Your task to perform on an android device: Search for usb-c on walmart, select the first entry, add it to the cart, then select checkout. Image 0: 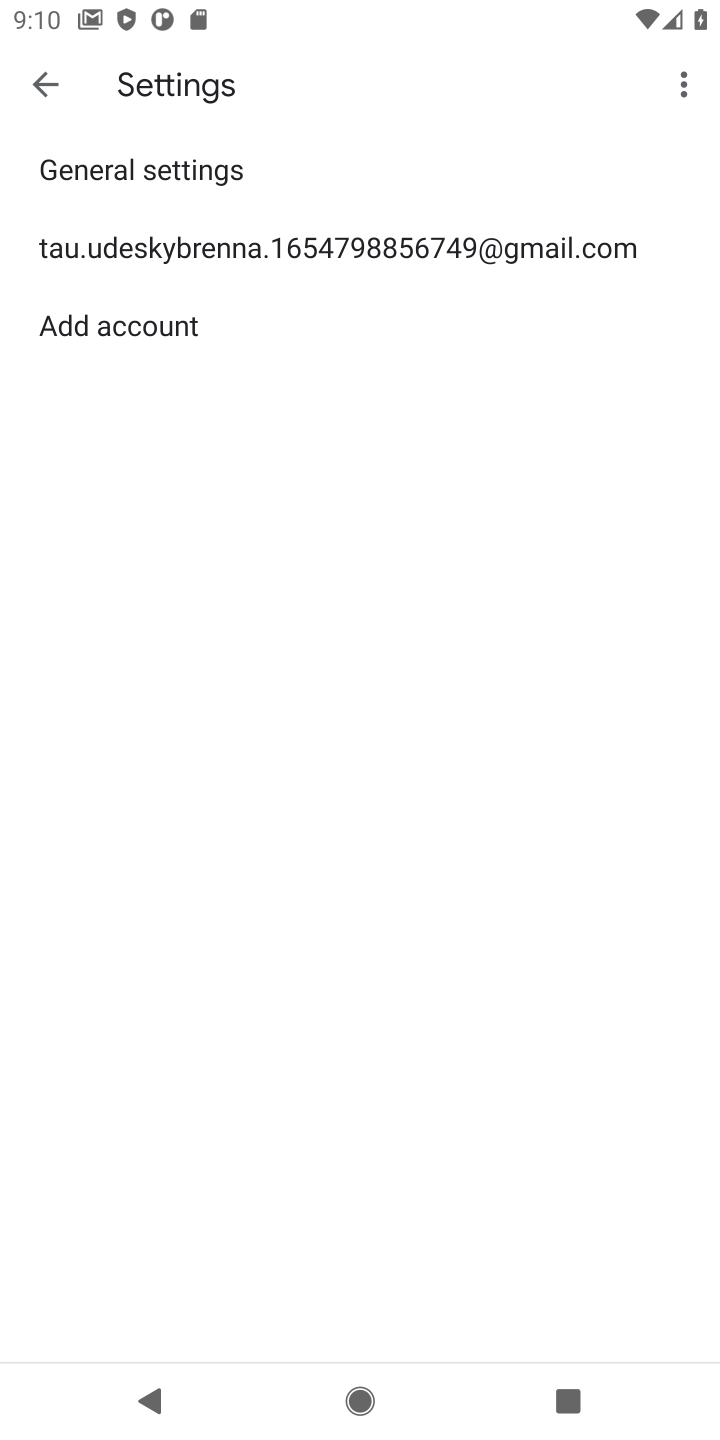
Step 0: press home button
Your task to perform on an android device: Search for usb-c on walmart, select the first entry, add it to the cart, then select checkout. Image 1: 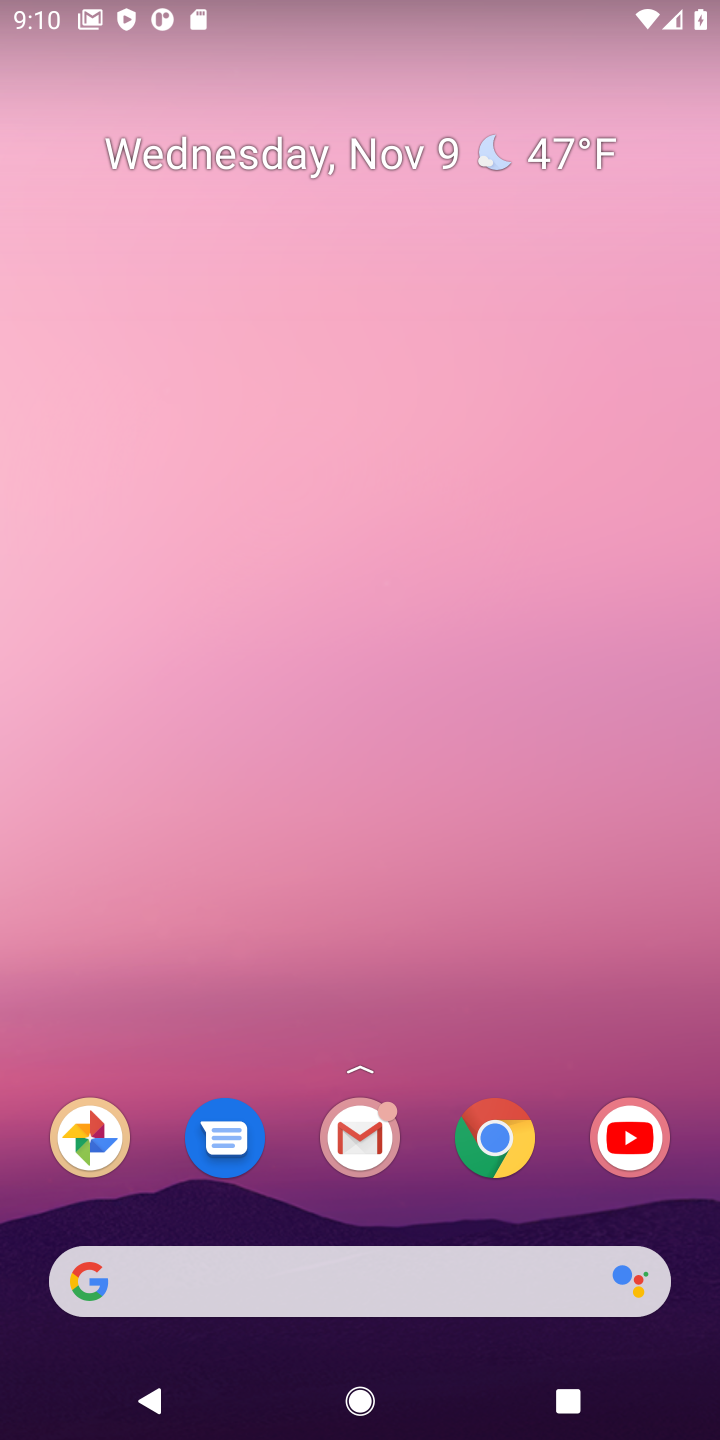
Step 1: drag from (427, 1222) to (451, 137)
Your task to perform on an android device: Search for usb-c on walmart, select the first entry, add it to the cart, then select checkout. Image 2: 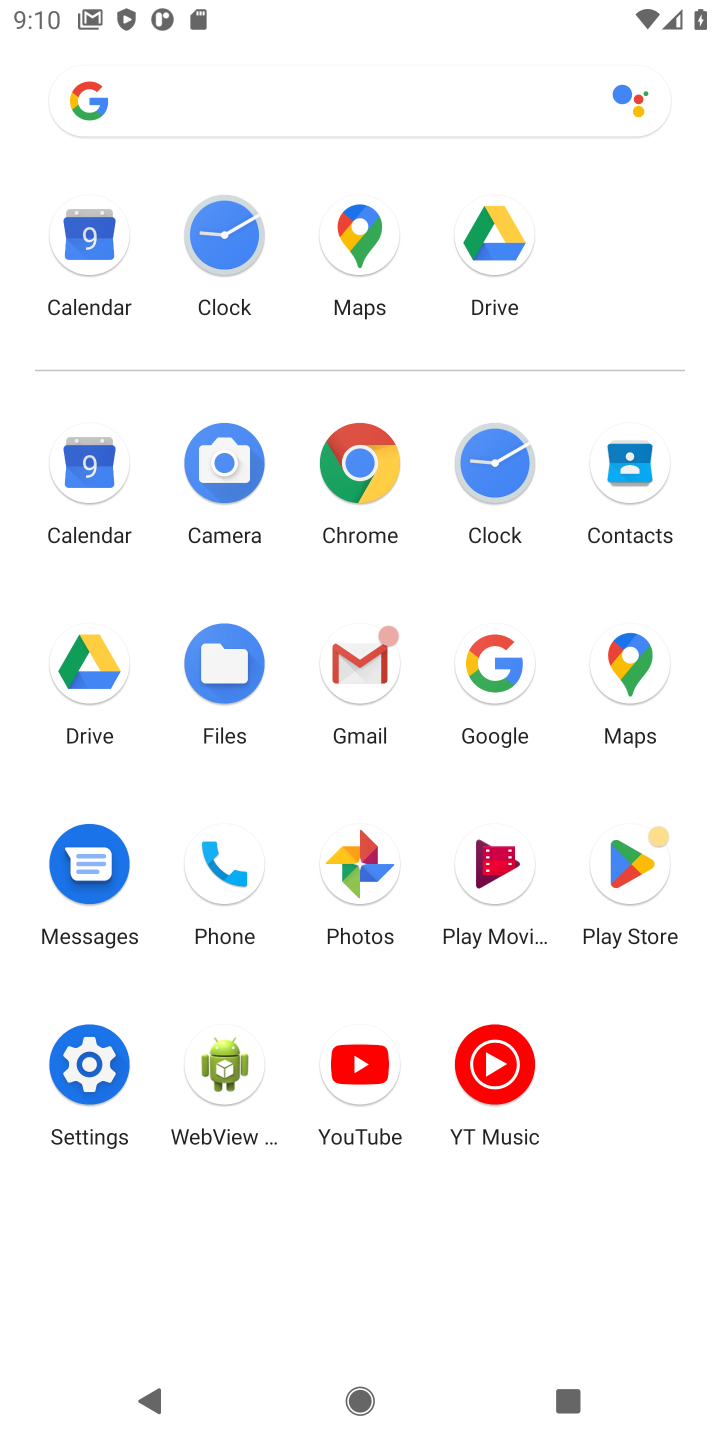
Step 2: click (343, 462)
Your task to perform on an android device: Search for usb-c on walmart, select the first entry, add it to the cart, then select checkout. Image 3: 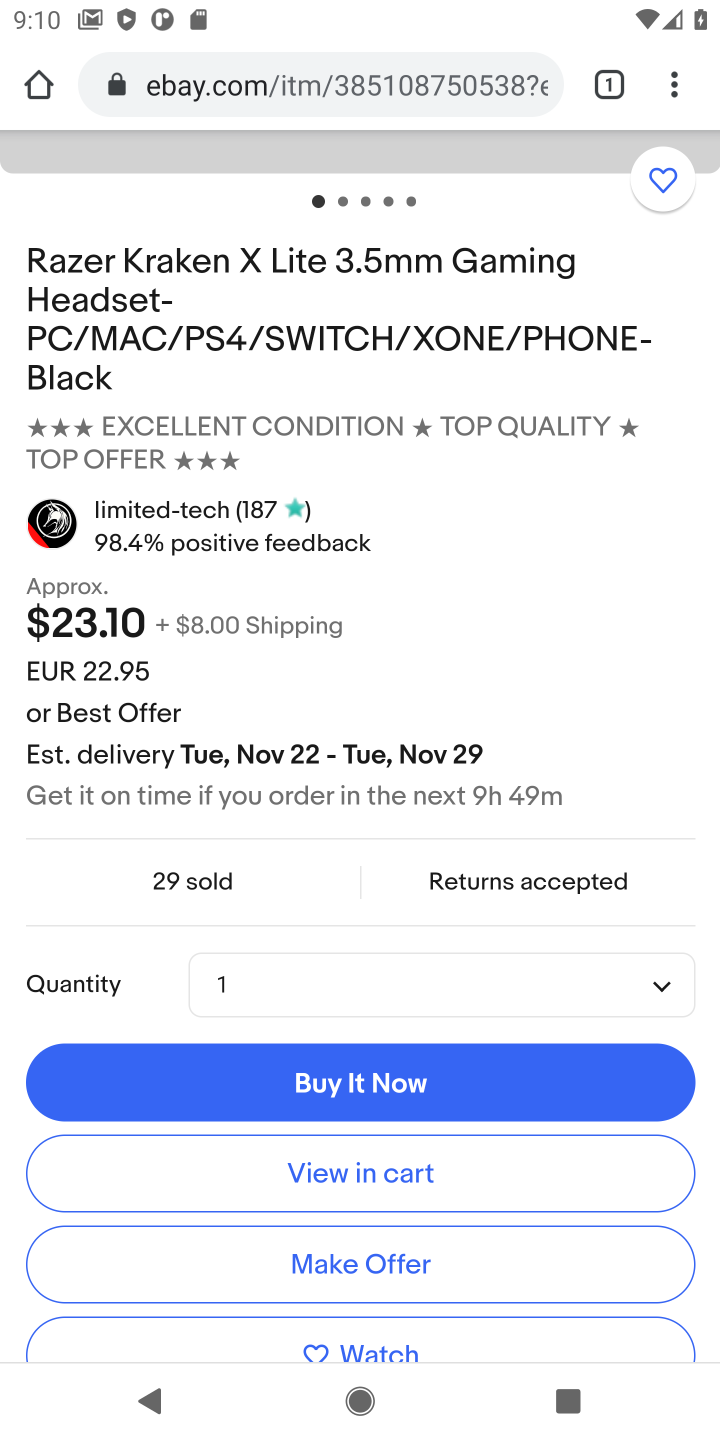
Step 3: click (433, 74)
Your task to perform on an android device: Search for usb-c on walmart, select the first entry, add it to the cart, then select checkout. Image 4: 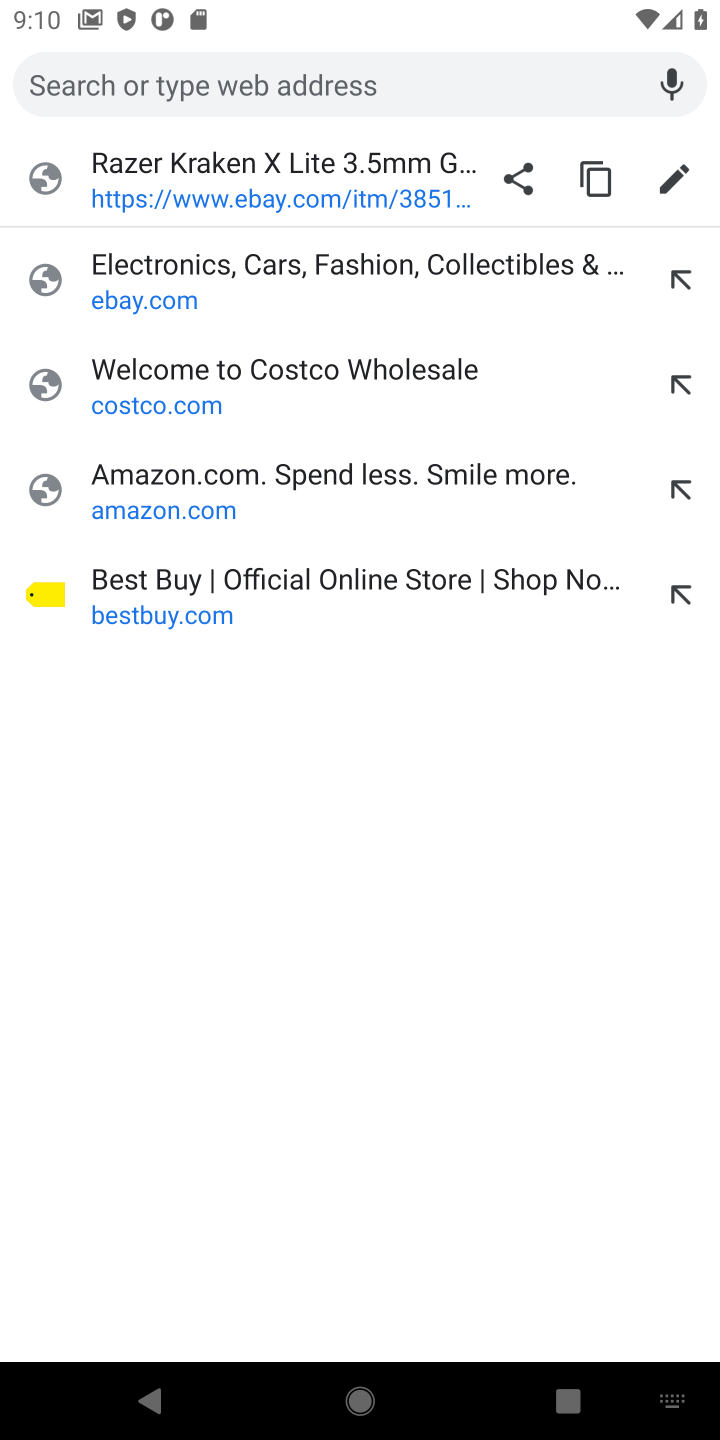
Step 4: type "walmart.com"
Your task to perform on an android device: Search for usb-c on walmart, select the first entry, add it to the cart, then select checkout. Image 5: 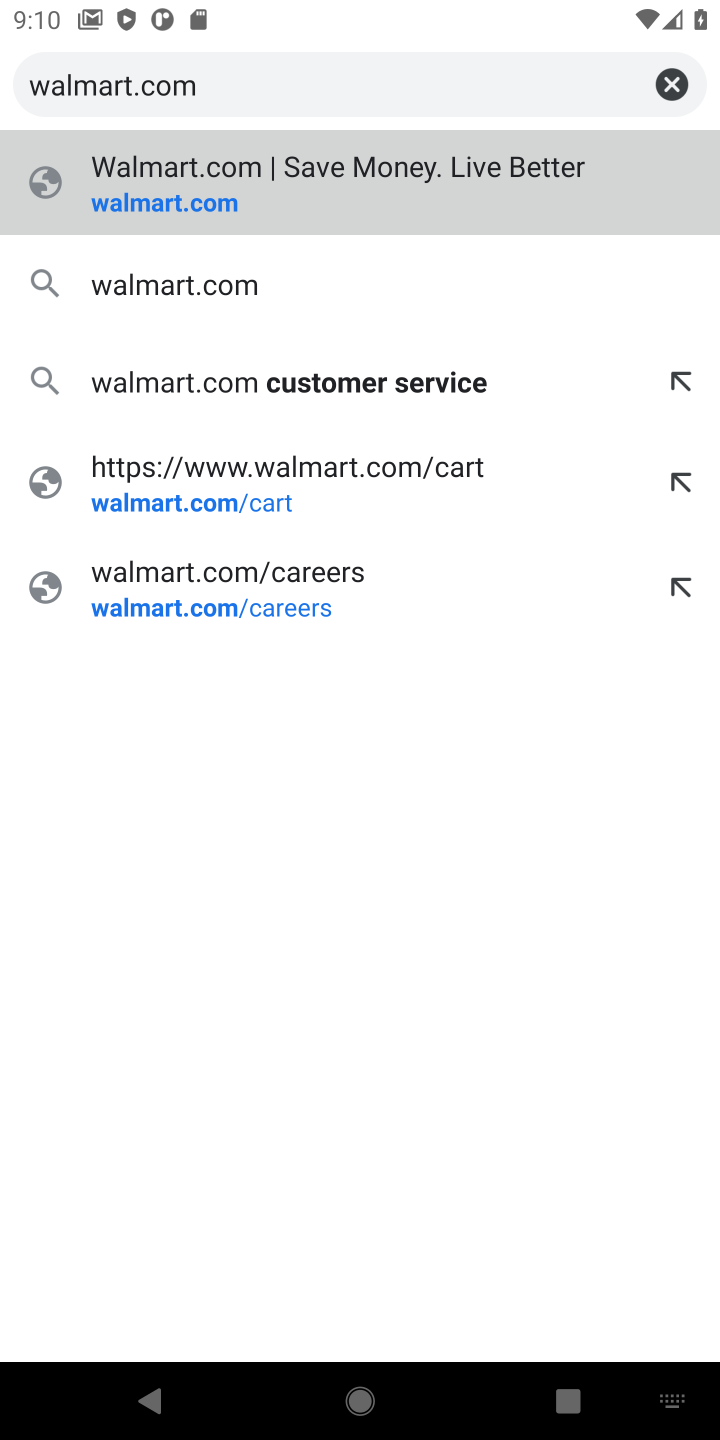
Step 5: press enter
Your task to perform on an android device: Search for usb-c on walmart, select the first entry, add it to the cart, then select checkout. Image 6: 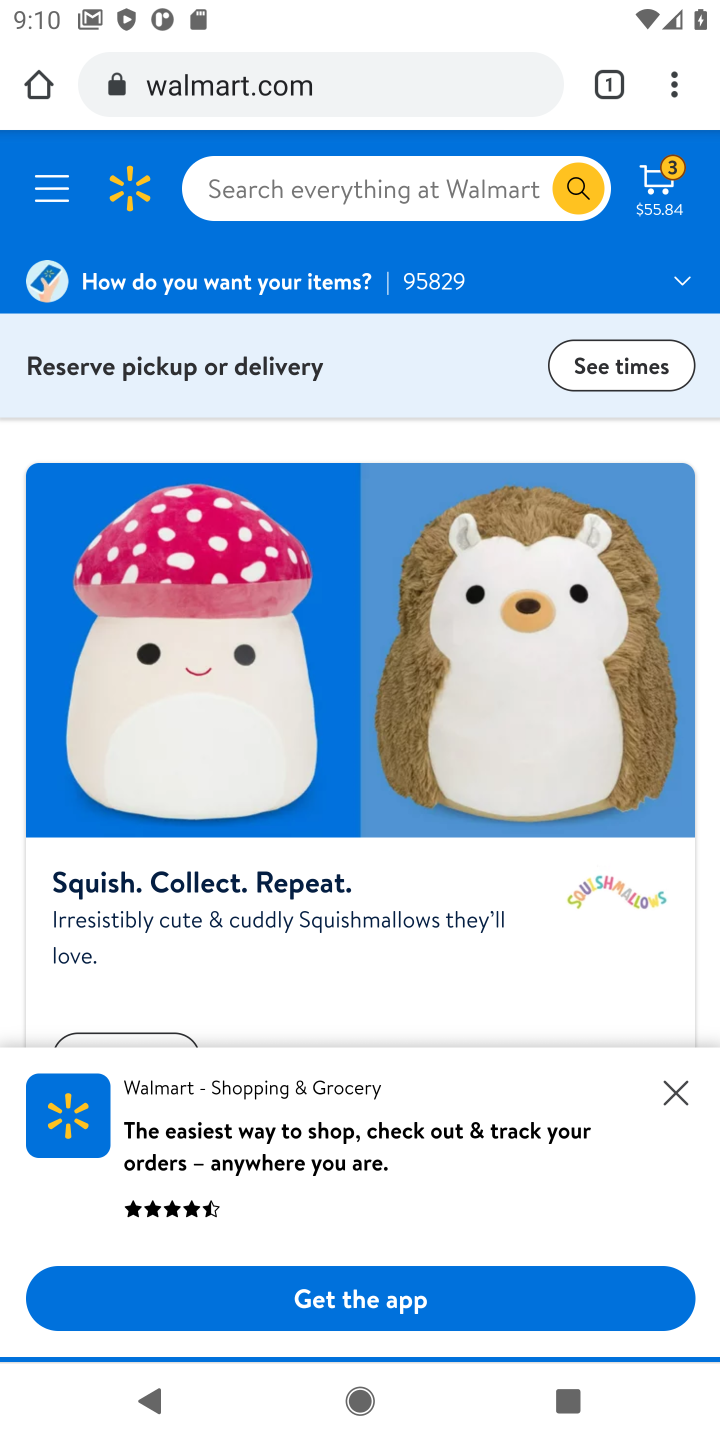
Step 6: click (418, 185)
Your task to perform on an android device: Search for usb-c on walmart, select the first entry, add it to the cart, then select checkout. Image 7: 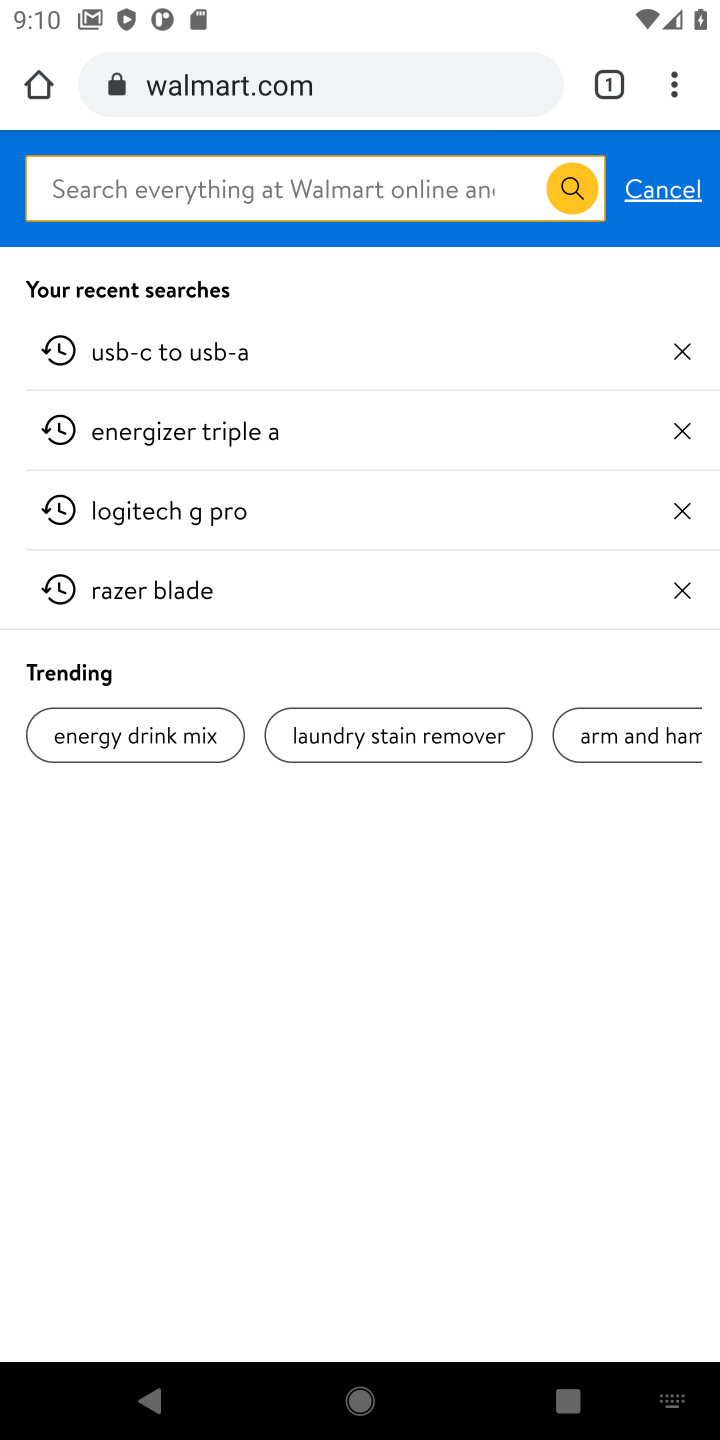
Step 7: type "usb-c"
Your task to perform on an android device: Search for usb-c on walmart, select the first entry, add it to the cart, then select checkout. Image 8: 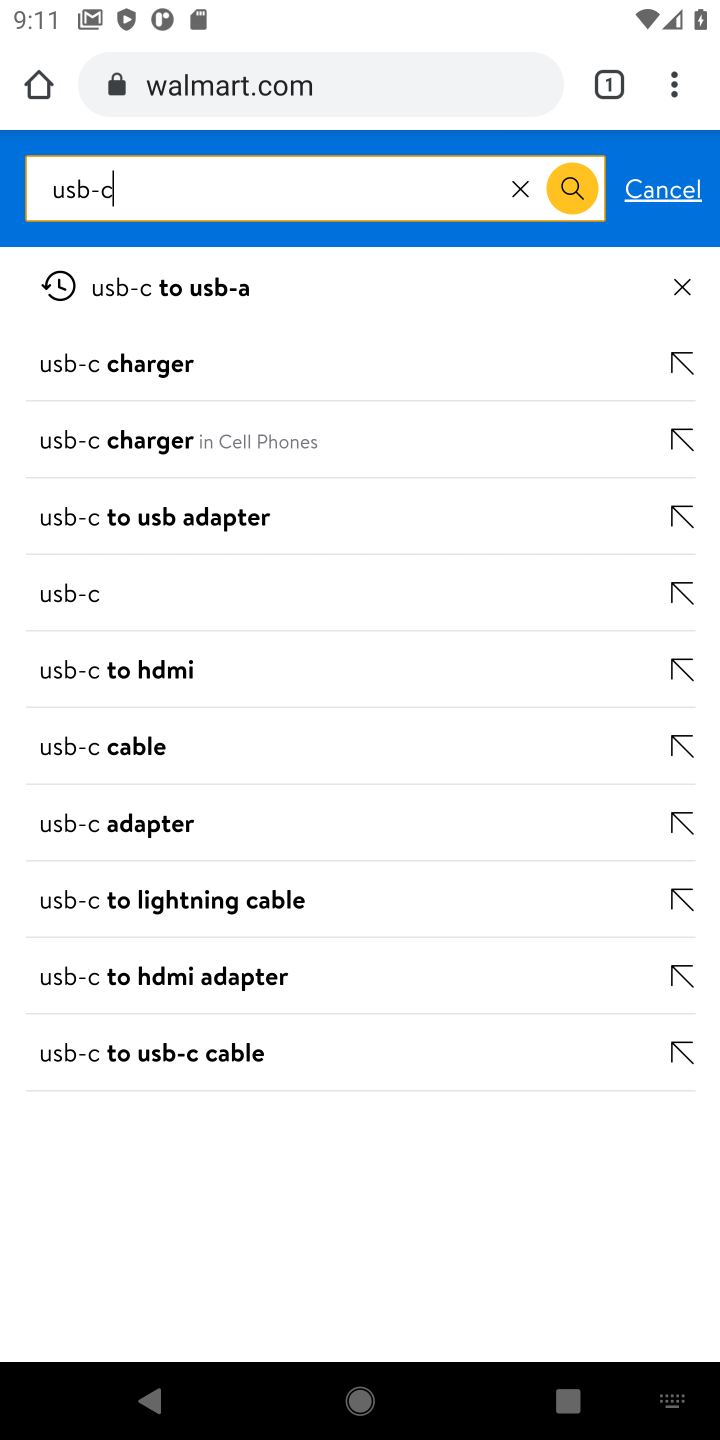
Step 8: press enter
Your task to perform on an android device: Search for usb-c on walmart, select the first entry, add it to the cart, then select checkout. Image 9: 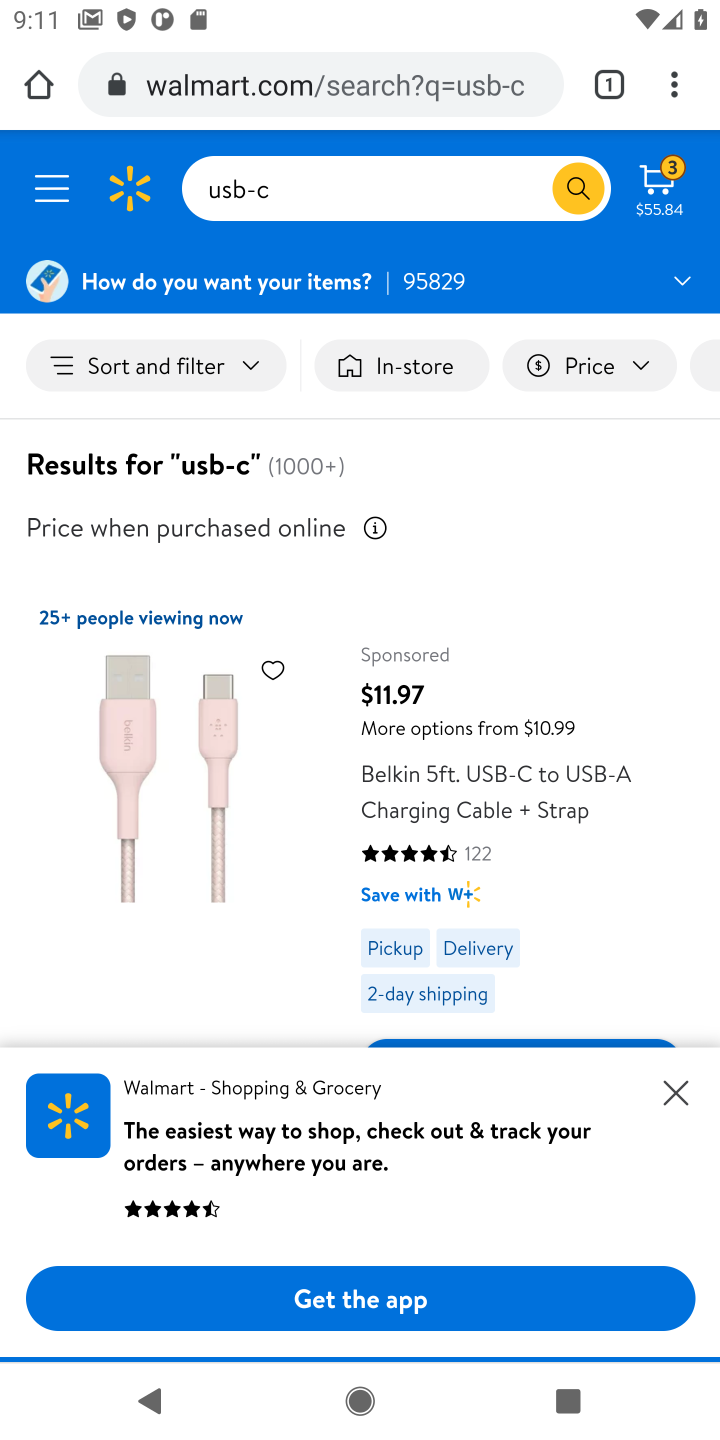
Step 9: drag from (434, 960) to (358, 148)
Your task to perform on an android device: Search for usb-c on walmart, select the first entry, add it to the cart, then select checkout. Image 10: 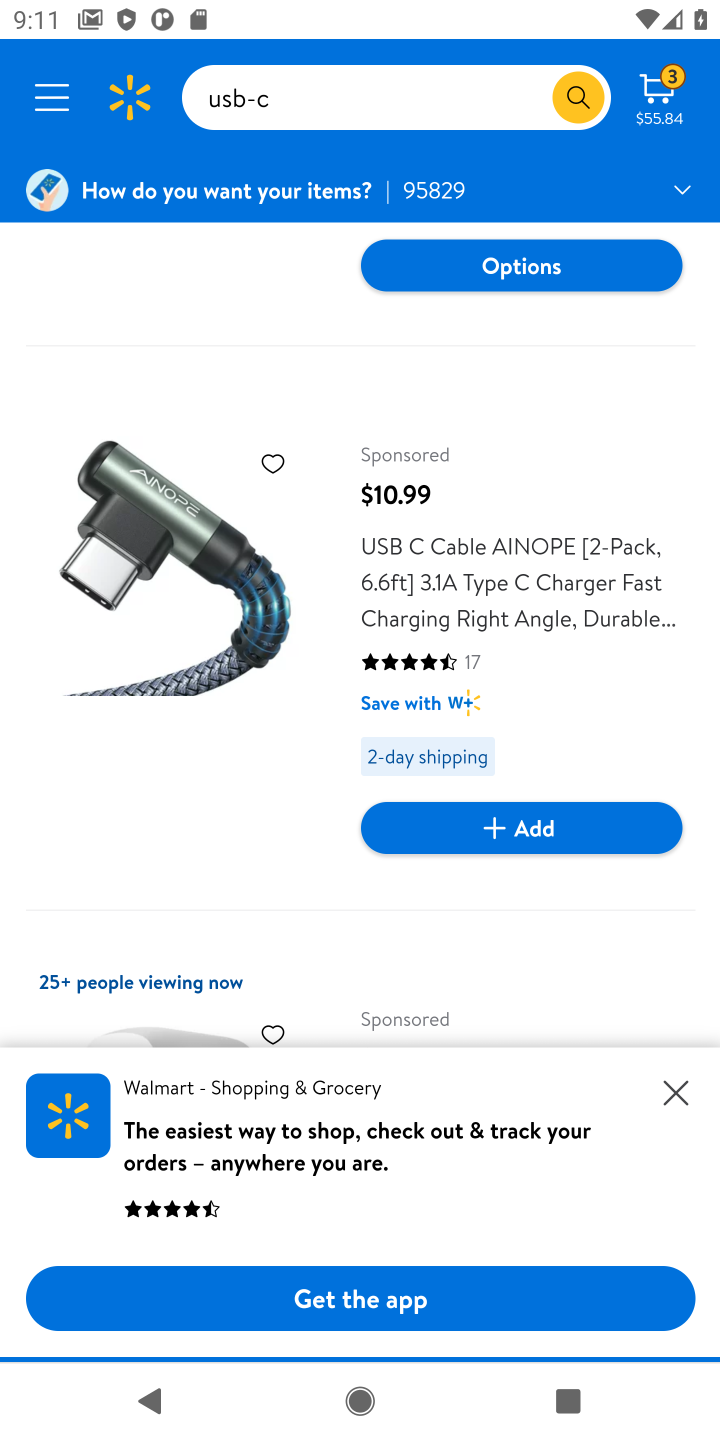
Step 10: drag from (287, 919) to (716, 74)
Your task to perform on an android device: Search for usb-c on walmart, select the first entry, add it to the cart, then select checkout. Image 11: 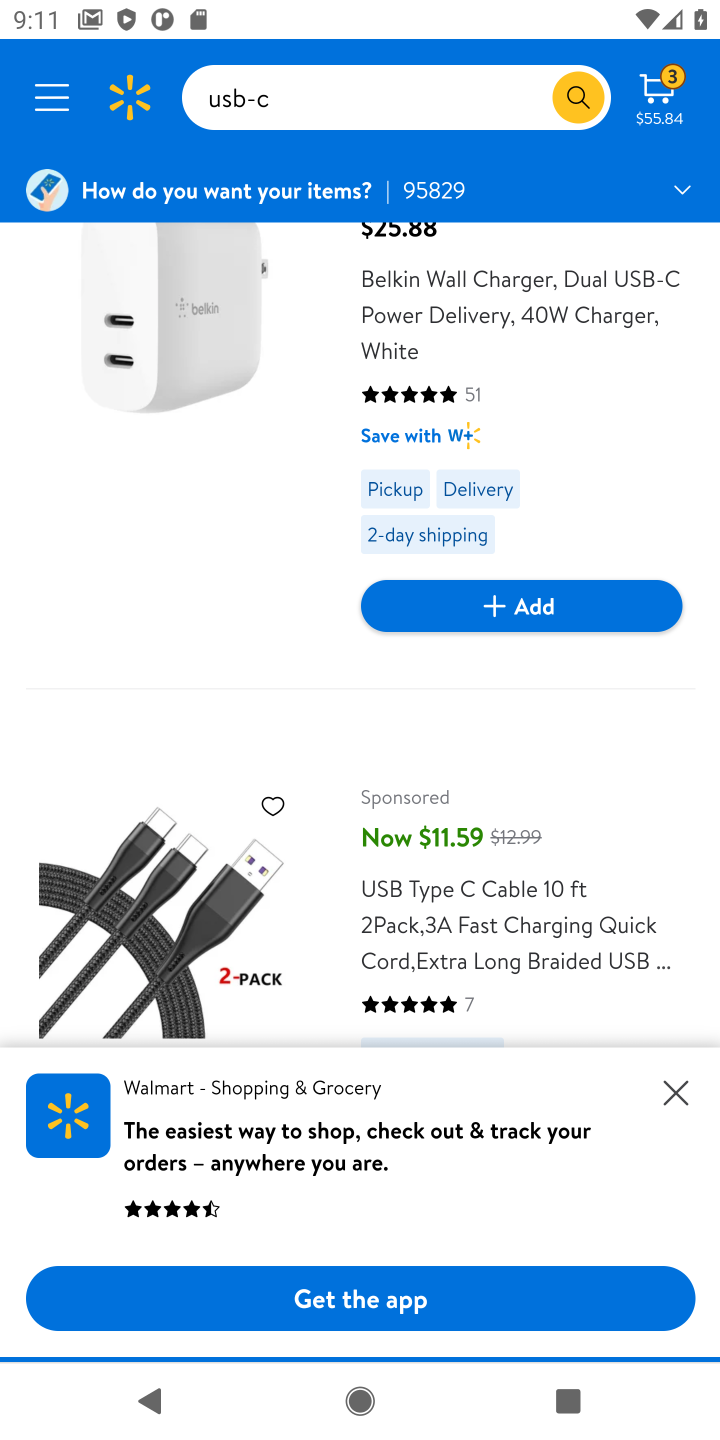
Step 11: drag from (476, 968) to (484, 360)
Your task to perform on an android device: Search for usb-c on walmart, select the first entry, add it to the cart, then select checkout. Image 12: 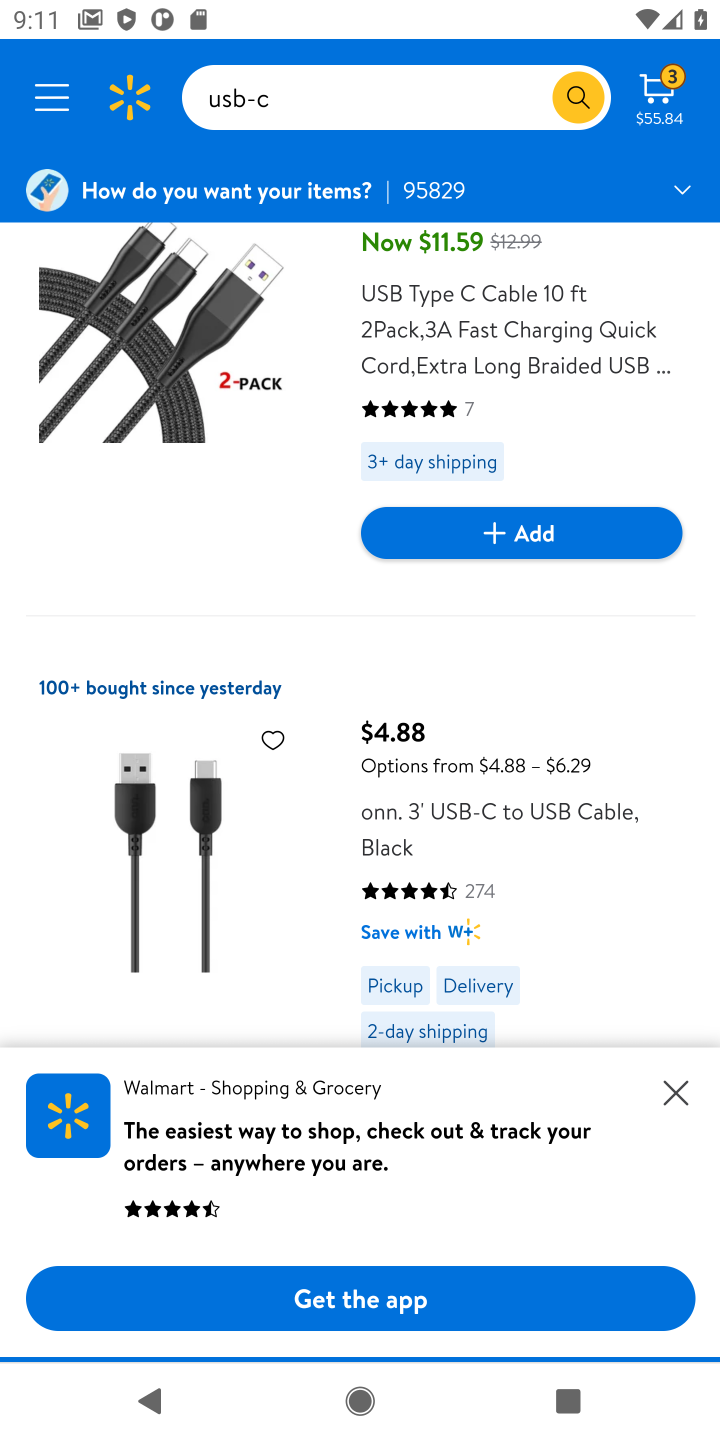
Step 12: click (521, 717)
Your task to perform on an android device: Search for usb-c on walmart, select the first entry, add it to the cart, then select checkout. Image 13: 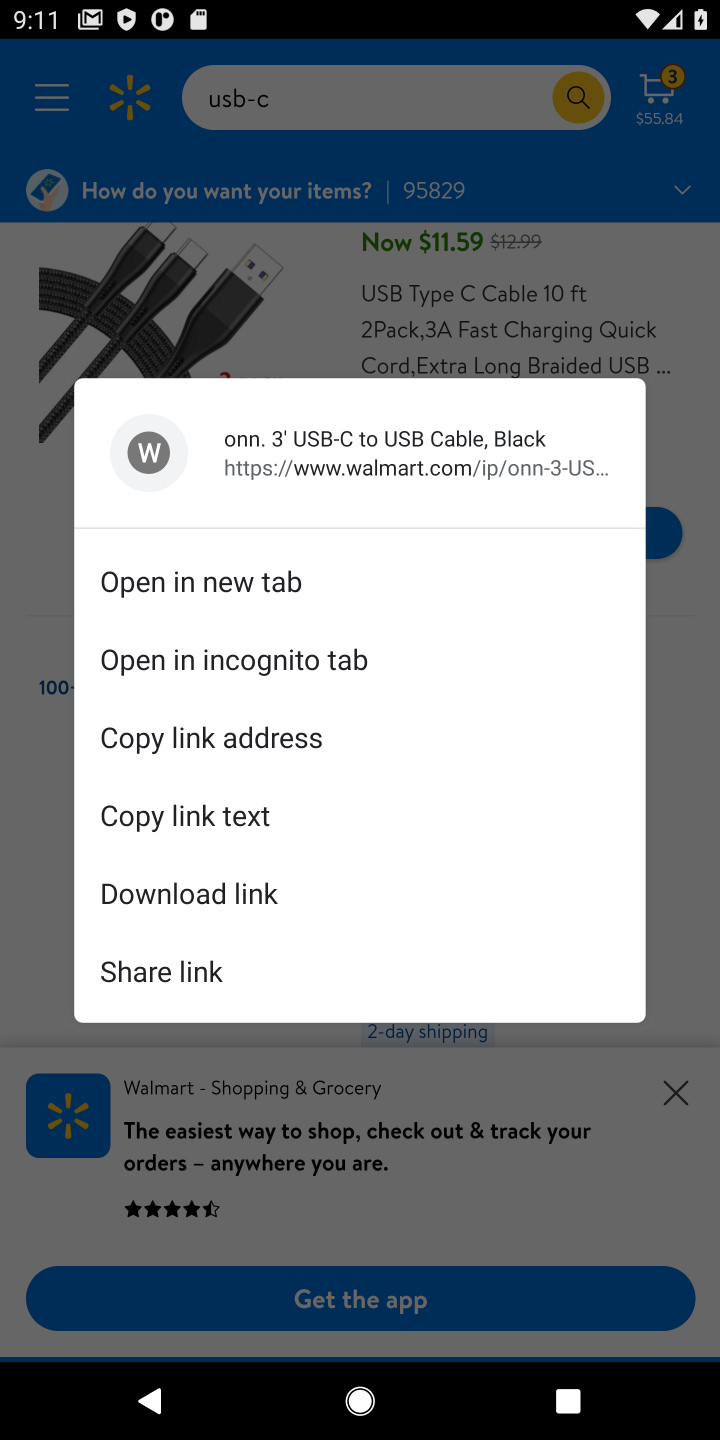
Step 13: click (497, 259)
Your task to perform on an android device: Search for usb-c on walmart, select the first entry, add it to the cart, then select checkout. Image 14: 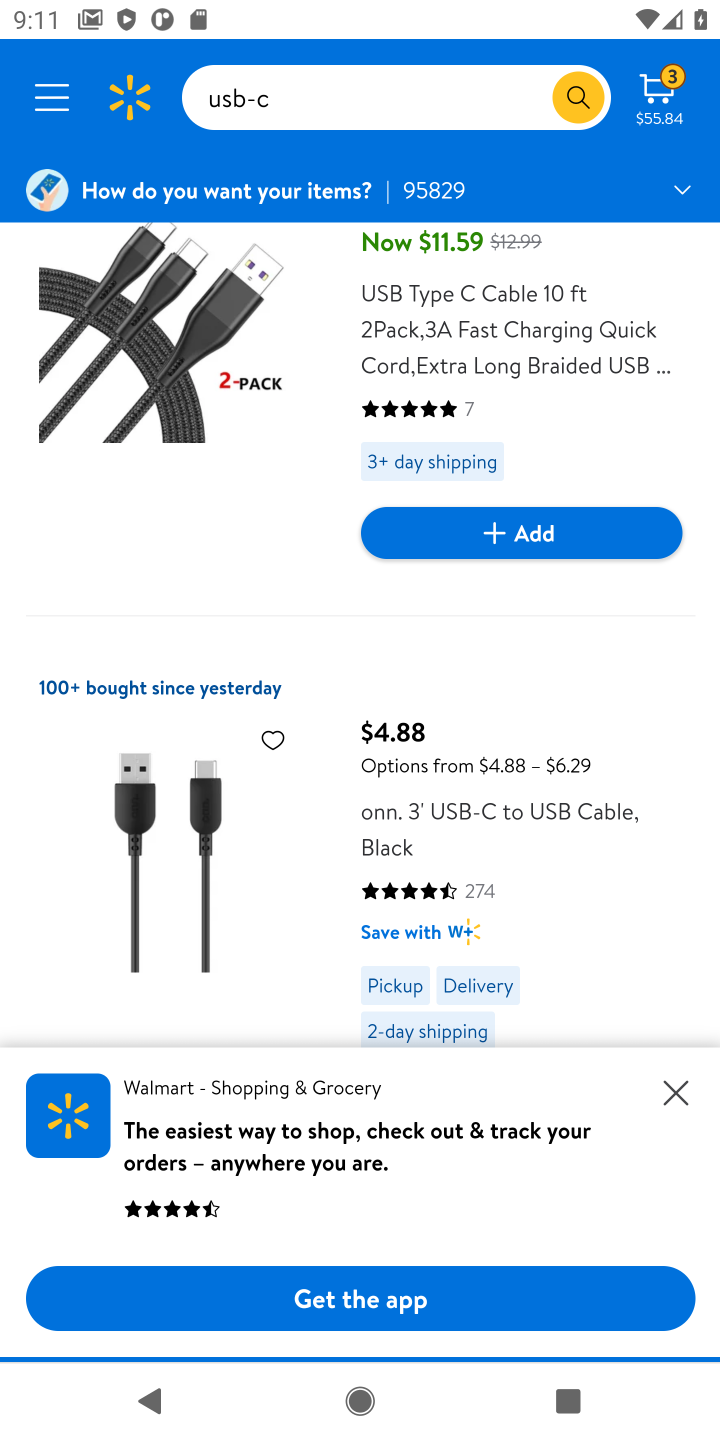
Step 14: drag from (563, 917) to (552, 299)
Your task to perform on an android device: Search for usb-c on walmart, select the first entry, add it to the cart, then select checkout. Image 15: 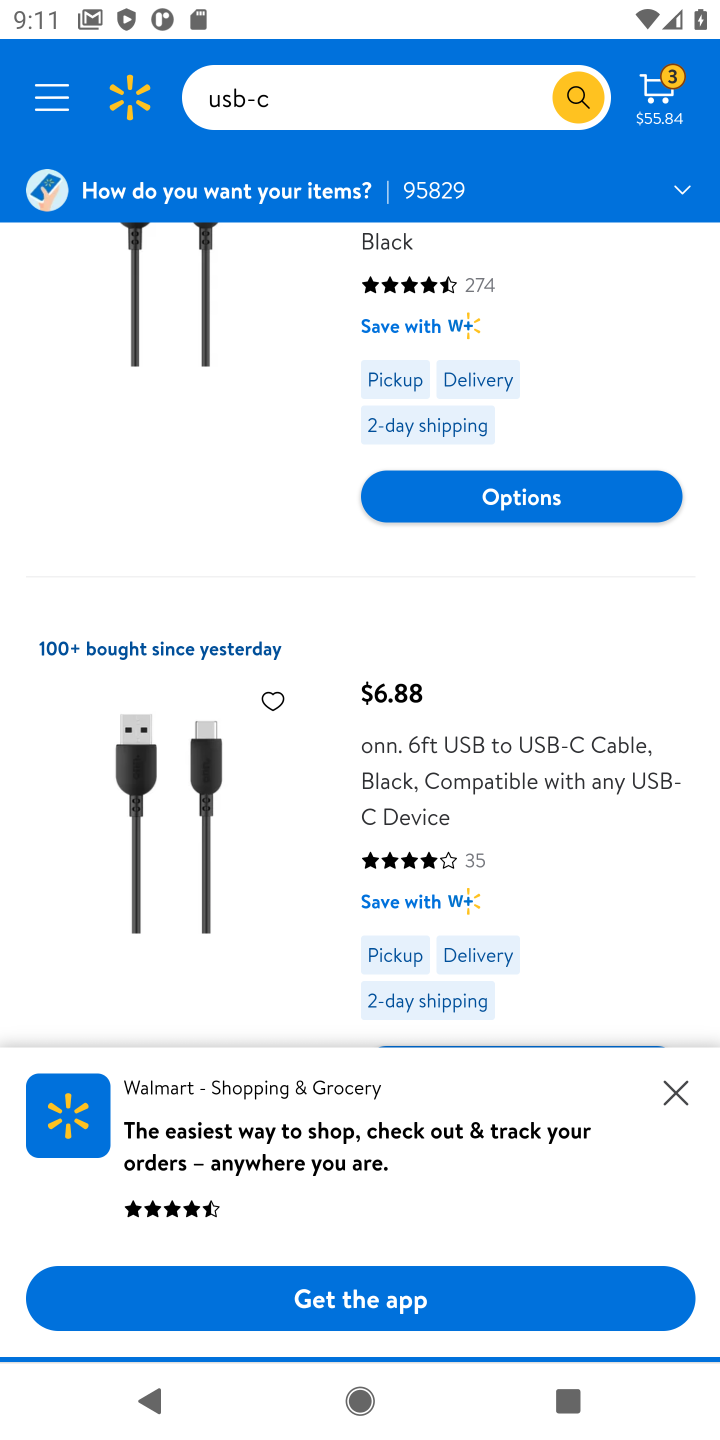
Step 15: drag from (465, 558) to (467, 890)
Your task to perform on an android device: Search for usb-c on walmart, select the first entry, add it to the cart, then select checkout. Image 16: 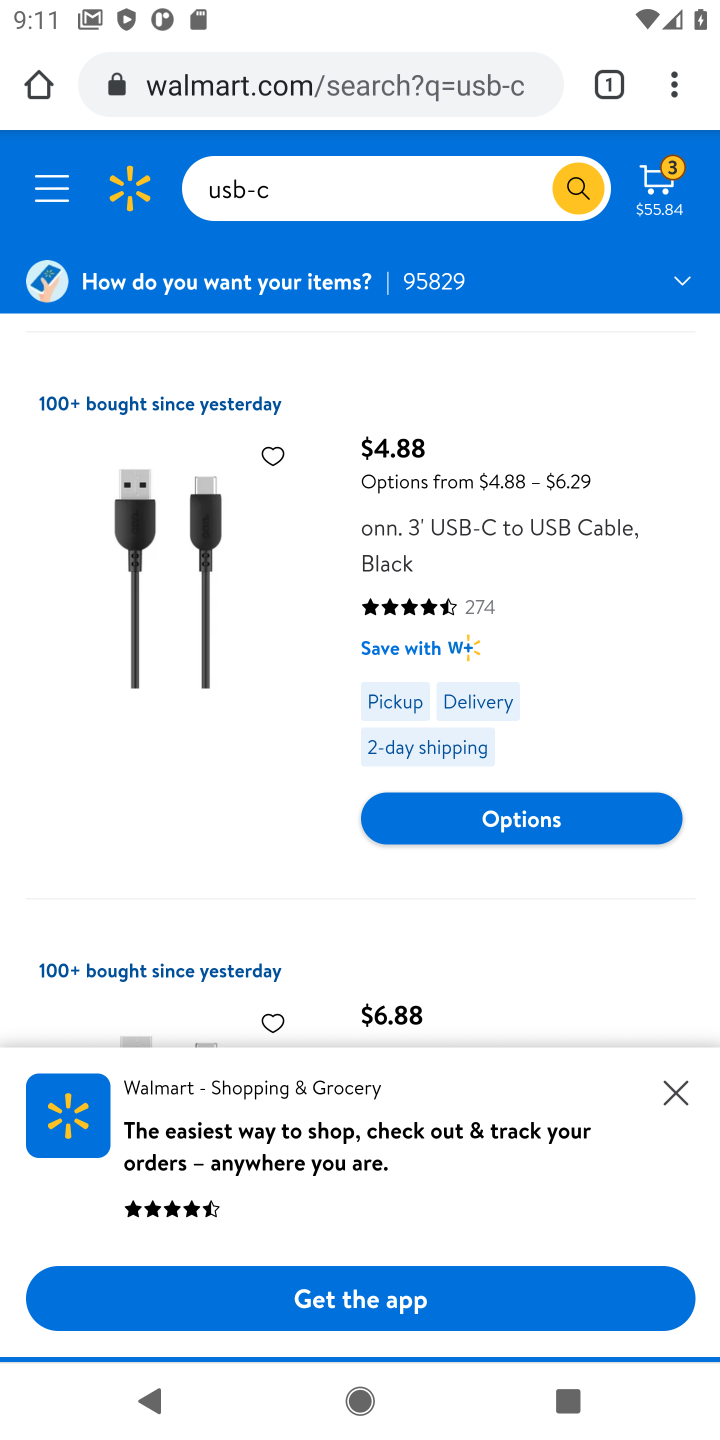
Step 16: click (526, 819)
Your task to perform on an android device: Search for usb-c on walmart, select the first entry, add it to the cart, then select checkout. Image 17: 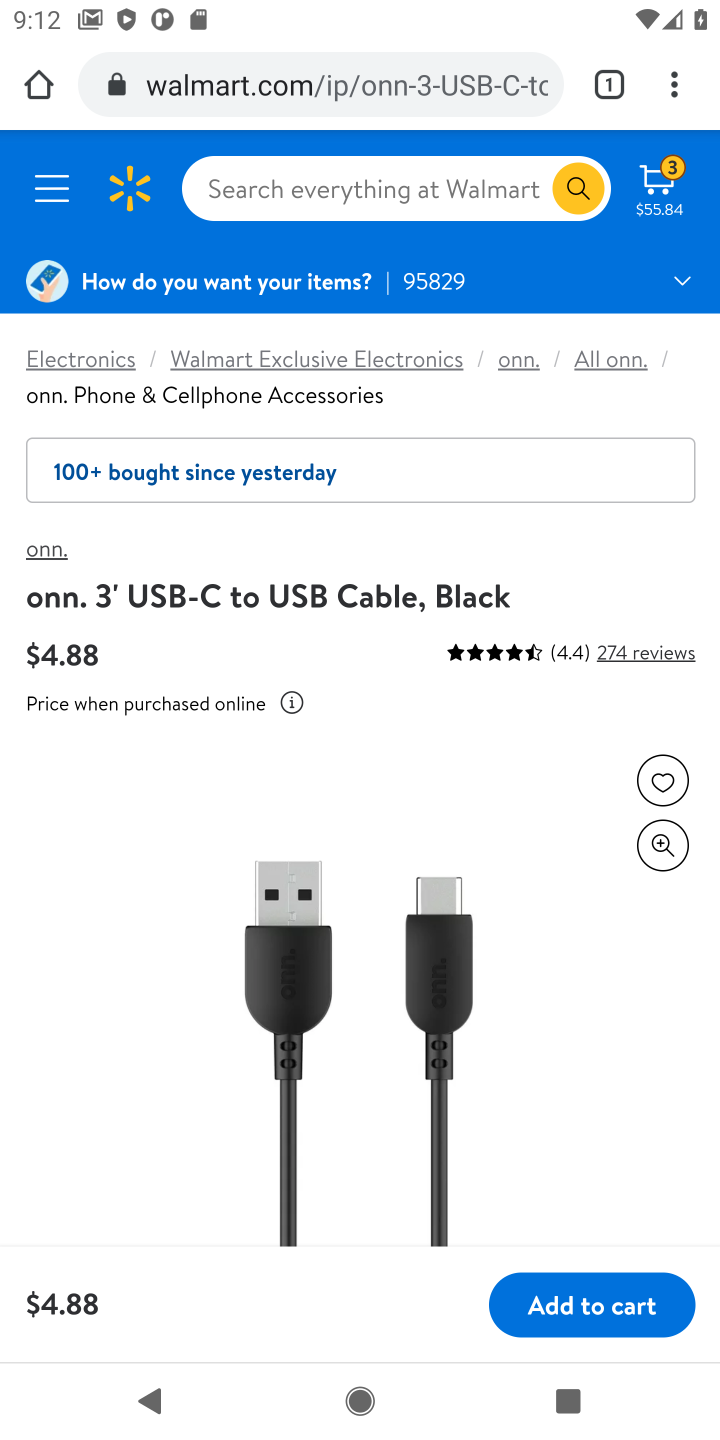
Step 17: drag from (521, 1050) to (507, 547)
Your task to perform on an android device: Search for usb-c on walmart, select the first entry, add it to the cart, then select checkout. Image 18: 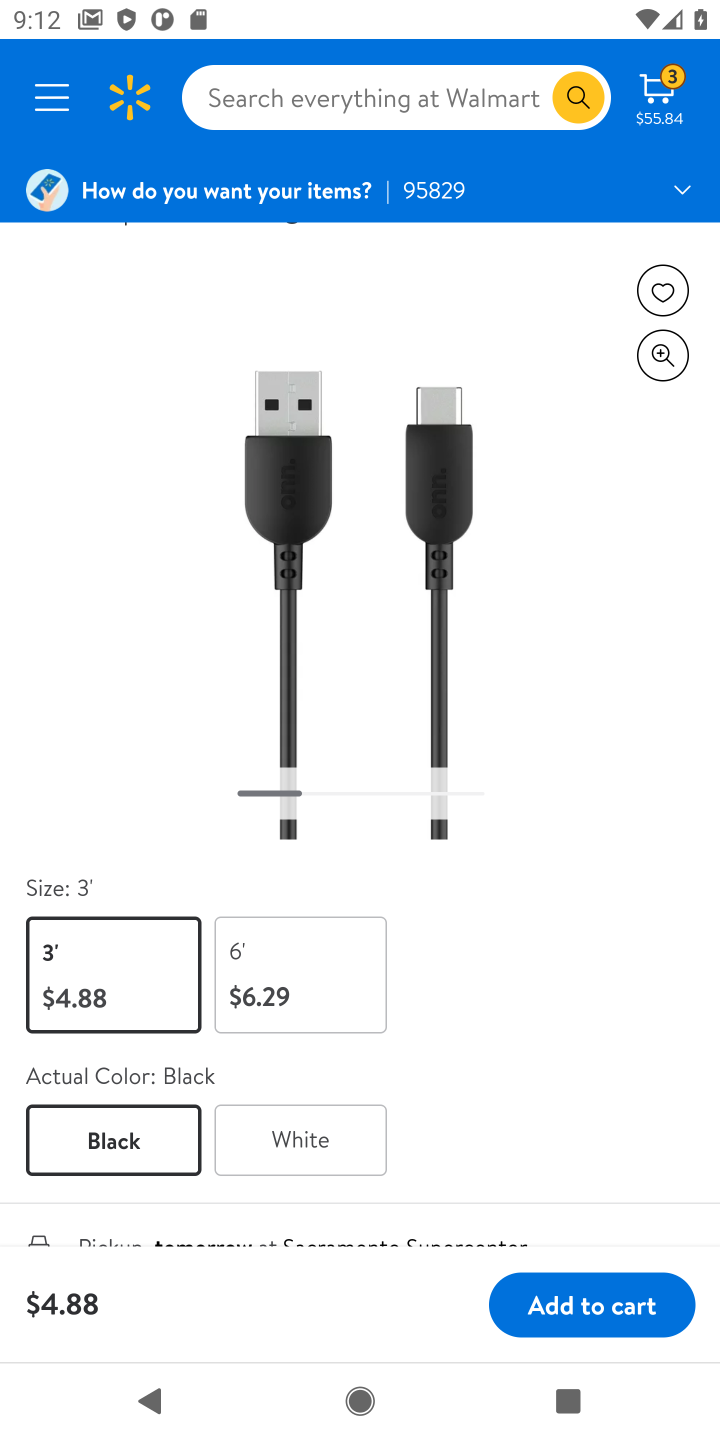
Step 18: click (613, 1303)
Your task to perform on an android device: Search for usb-c on walmart, select the first entry, add it to the cart, then select checkout. Image 19: 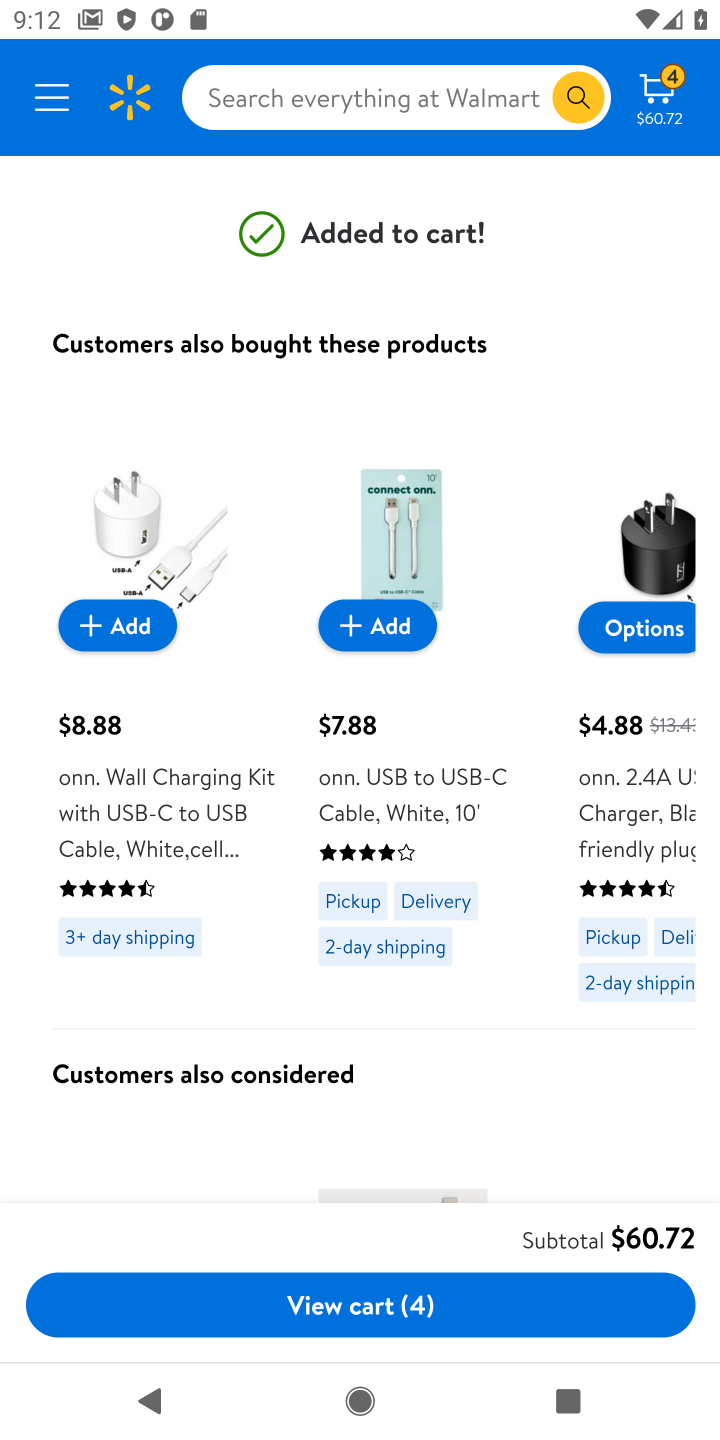
Step 19: click (675, 96)
Your task to perform on an android device: Search for usb-c on walmart, select the first entry, add it to the cart, then select checkout. Image 20: 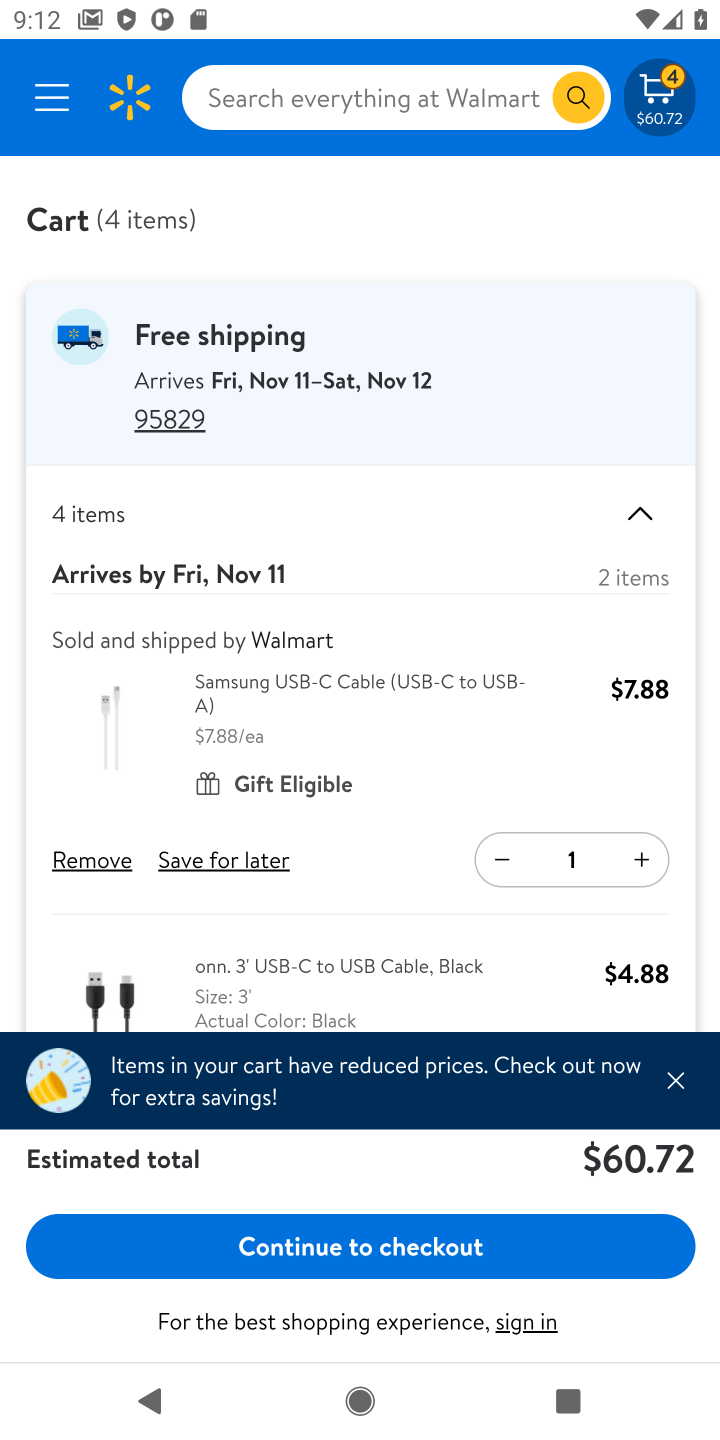
Step 20: click (302, 1249)
Your task to perform on an android device: Search for usb-c on walmart, select the first entry, add it to the cart, then select checkout. Image 21: 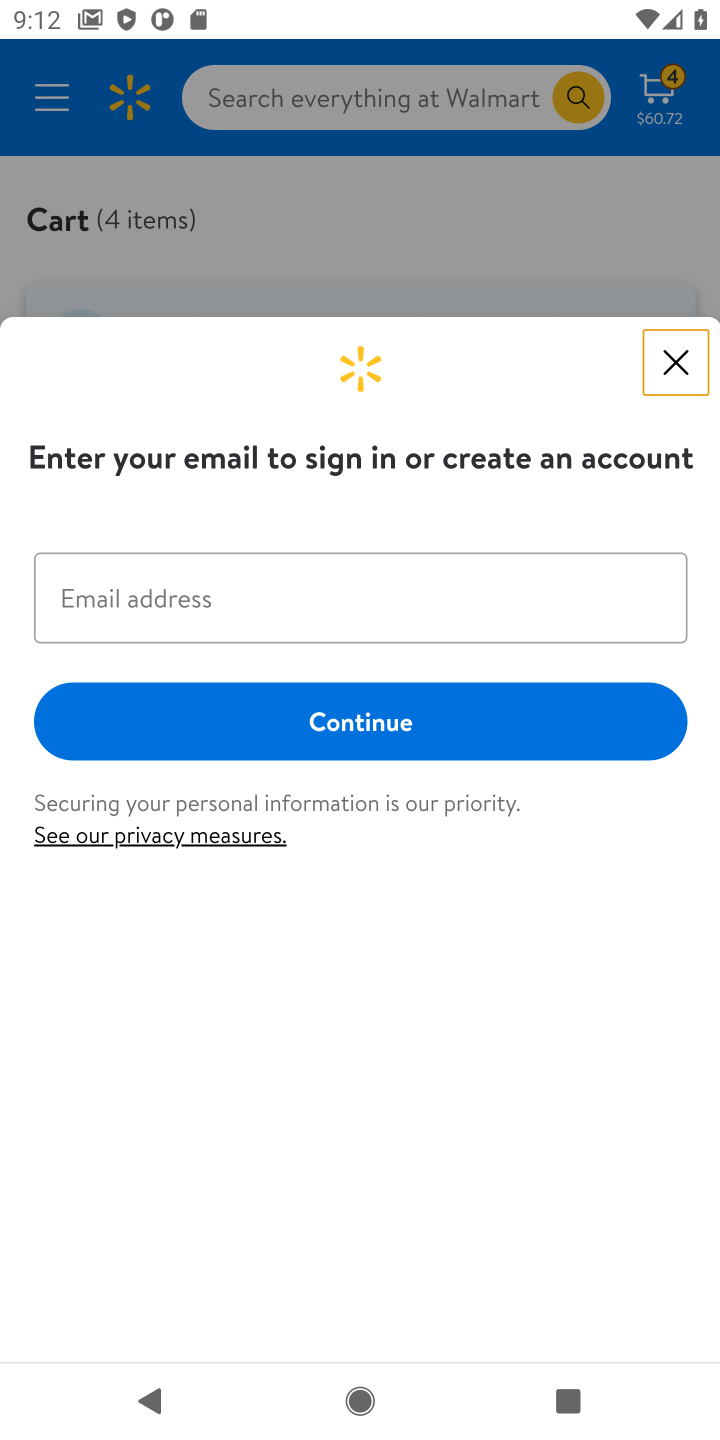
Step 21: task complete